Your task to perform on an android device: Open Google Chrome and click the shortcut for Amazon.com Image 0: 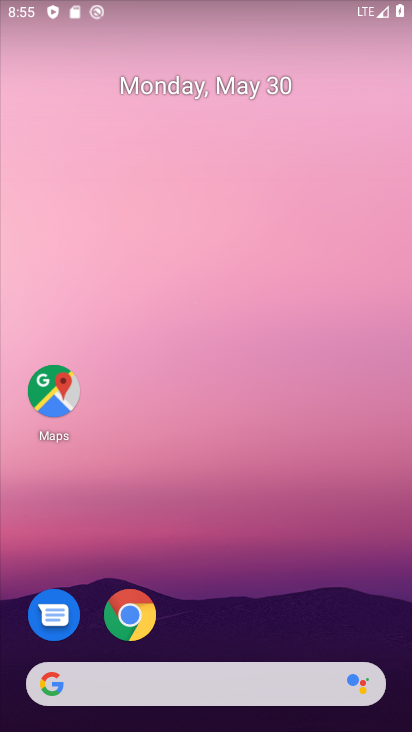
Step 0: click (150, 627)
Your task to perform on an android device: Open Google Chrome and click the shortcut for Amazon.com Image 1: 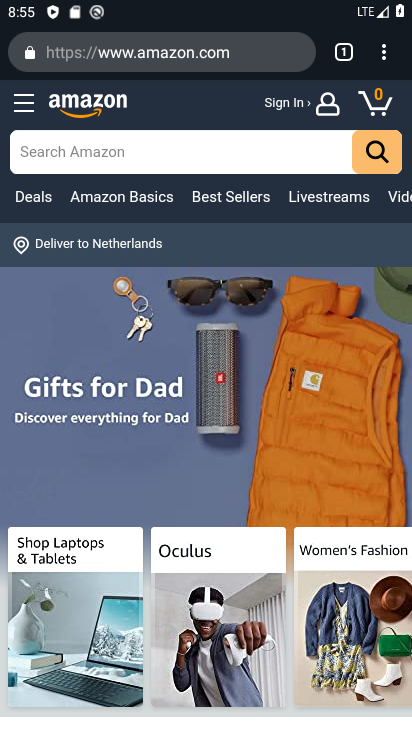
Step 1: click (344, 48)
Your task to perform on an android device: Open Google Chrome and click the shortcut for Amazon.com Image 2: 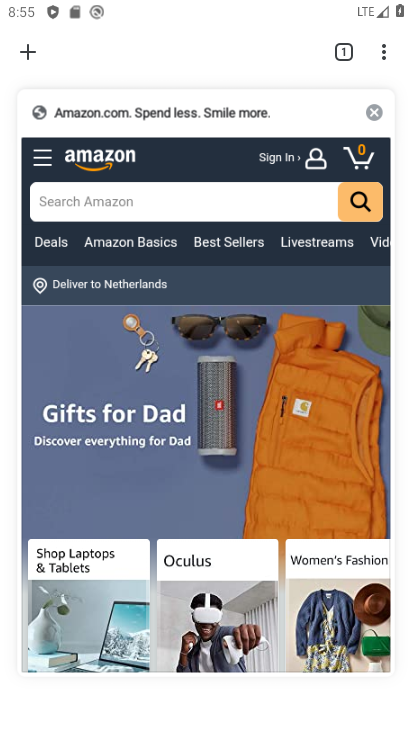
Step 2: click (377, 115)
Your task to perform on an android device: Open Google Chrome and click the shortcut for Amazon.com Image 3: 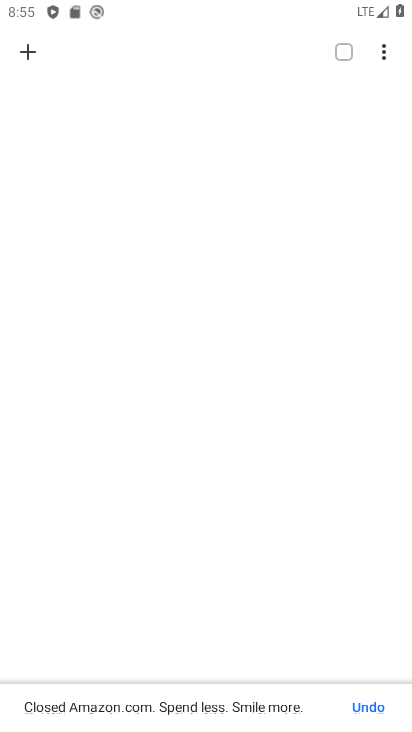
Step 3: click (41, 52)
Your task to perform on an android device: Open Google Chrome and click the shortcut for Amazon.com Image 4: 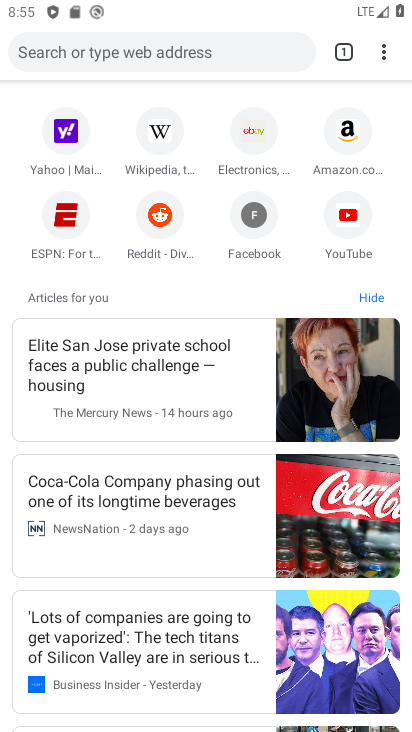
Step 4: click (356, 146)
Your task to perform on an android device: Open Google Chrome and click the shortcut for Amazon.com Image 5: 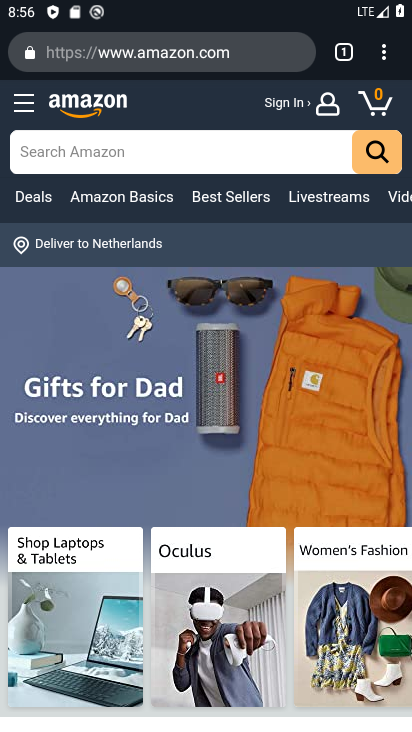
Step 5: task complete